Your task to perform on an android device: open device folders in google photos Image 0: 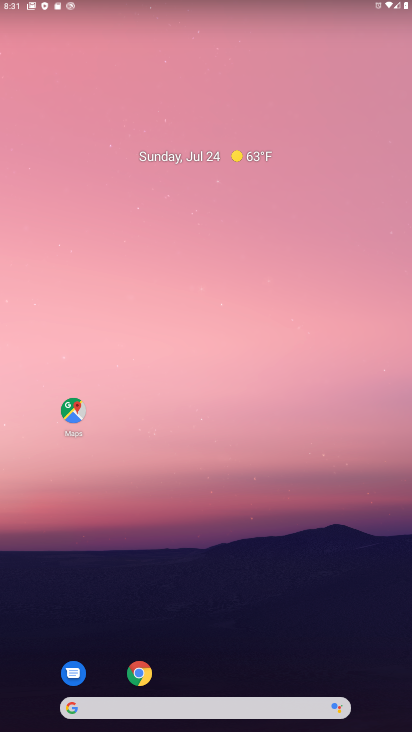
Step 0: drag from (231, 682) to (153, 131)
Your task to perform on an android device: open device folders in google photos Image 1: 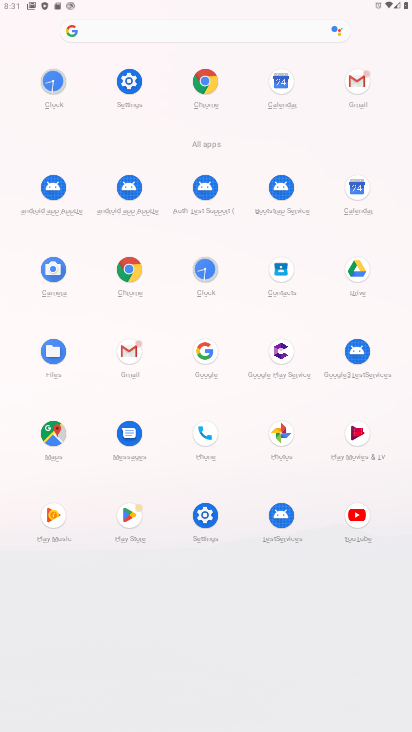
Step 1: click (286, 434)
Your task to perform on an android device: open device folders in google photos Image 2: 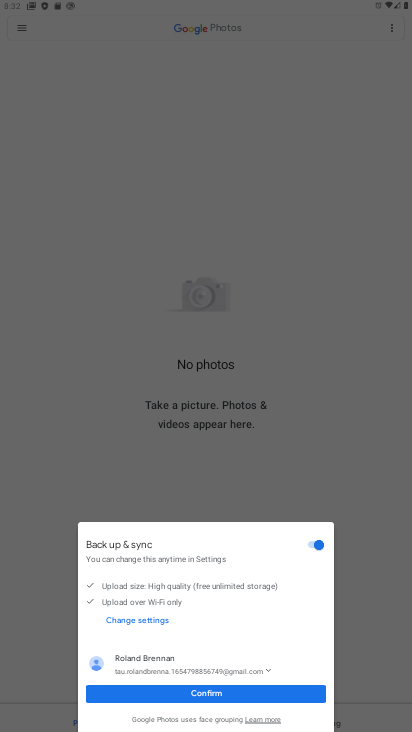
Step 2: click (243, 705)
Your task to perform on an android device: open device folders in google photos Image 3: 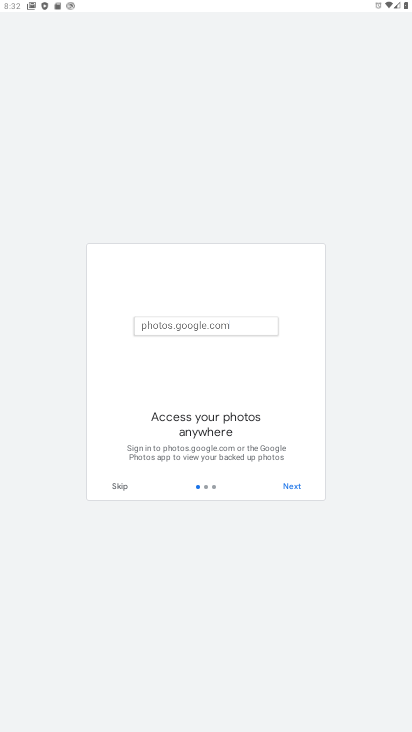
Step 3: click (271, 478)
Your task to perform on an android device: open device folders in google photos Image 4: 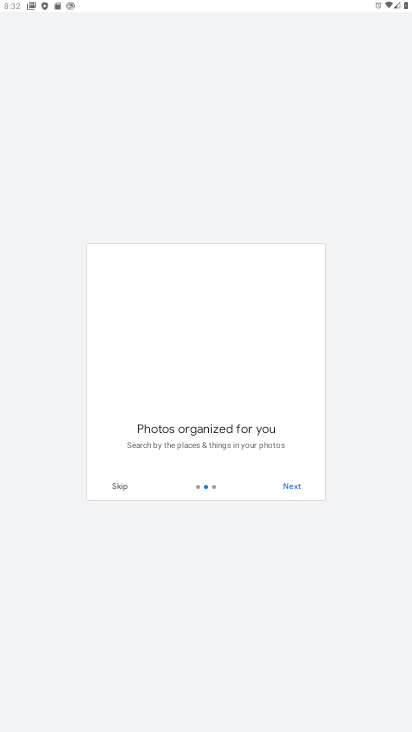
Step 4: click (132, 490)
Your task to perform on an android device: open device folders in google photos Image 5: 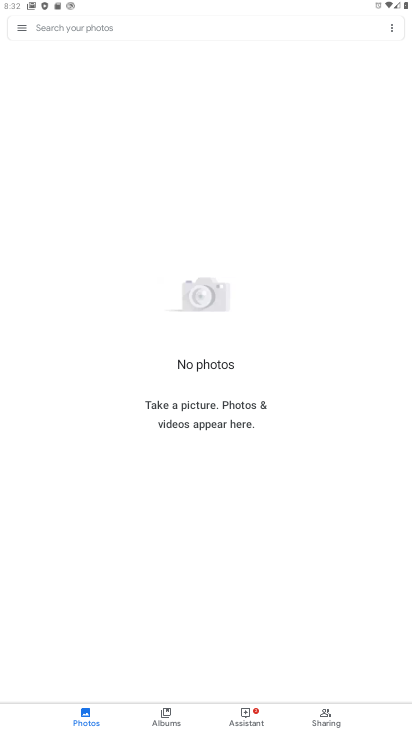
Step 5: click (25, 27)
Your task to perform on an android device: open device folders in google photos Image 6: 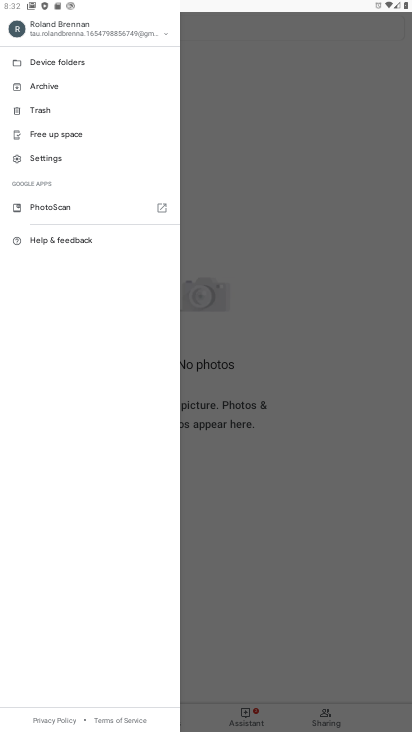
Step 6: click (56, 68)
Your task to perform on an android device: open device folders in google photos Image 7: 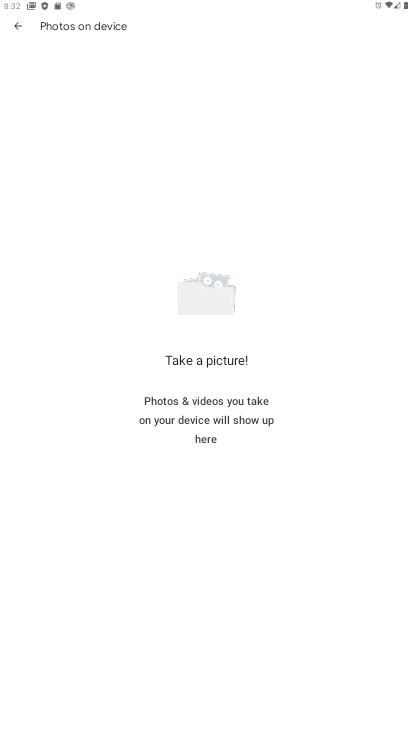
Step 7: task complete